Your task to perform on an android device: choose inbox layout in the gmail app Image 0: 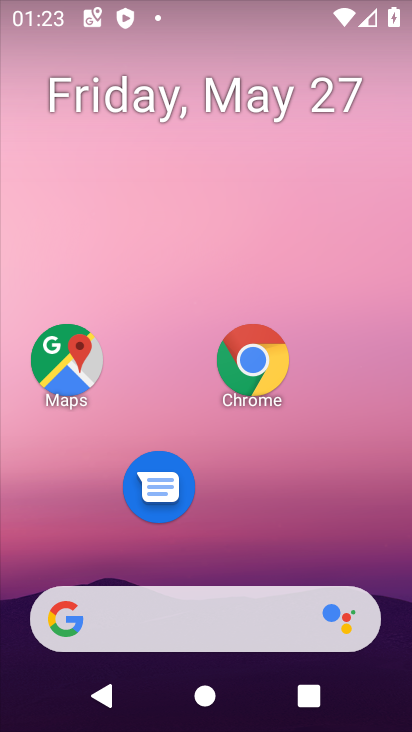
Step 0: drag from (326, 481) to (296, 65)
Your task to perform on an android device: choose inbox layout in the gmail app Image 1: 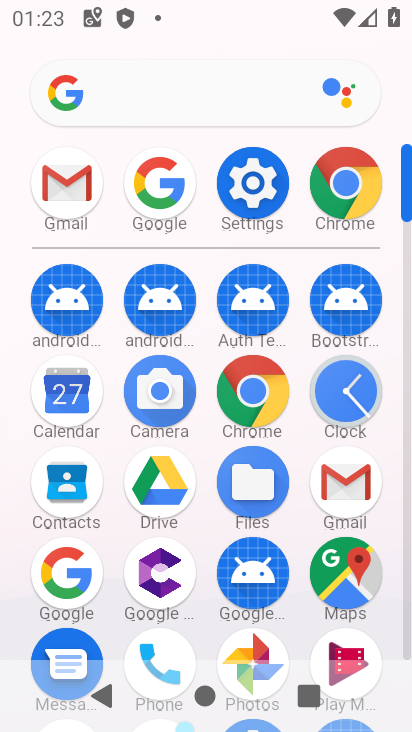
Step 1: click (356, 482)
Your task to perform on an android device: choose inbox layout in the gmail app Image 2: 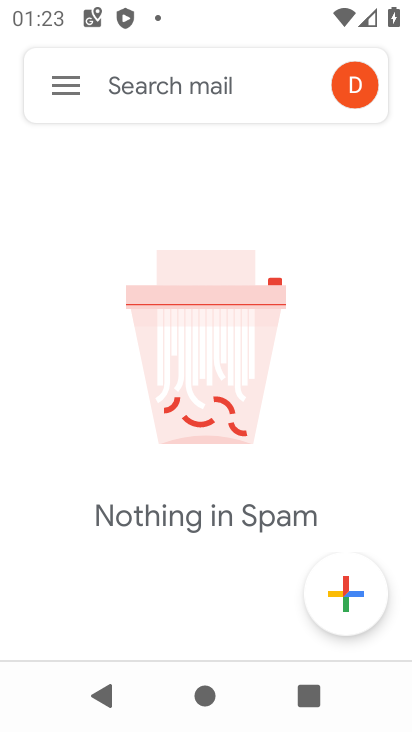
Step 2: click (64, 84)
Your task to perform on an android device: choose inbox layout in the gmail app Image 3: 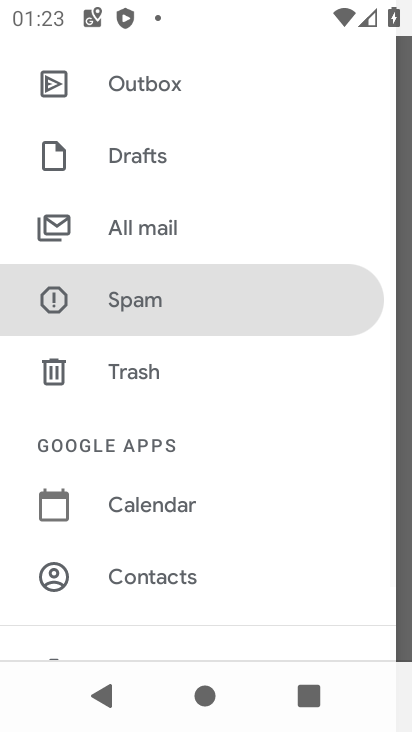
Step 3: drag from (230, 516) to (230, 222)
Your task to perform on an android device: choose inbox layout in the gmail app Image 4: 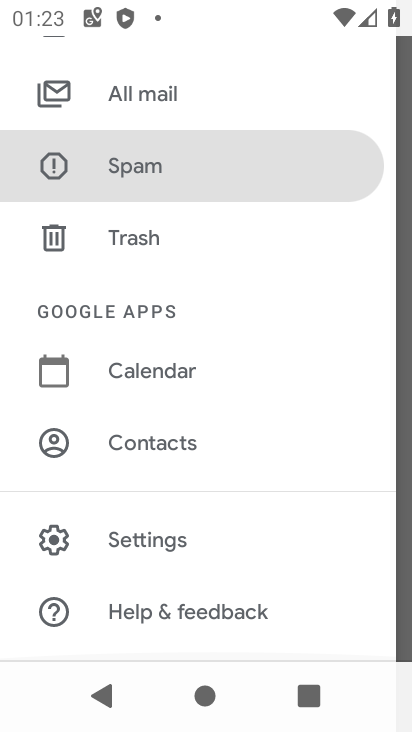
Step 4: click (177, 544)
Your task to perform on an android device: choose inbox layout in the gmail app Image 5: 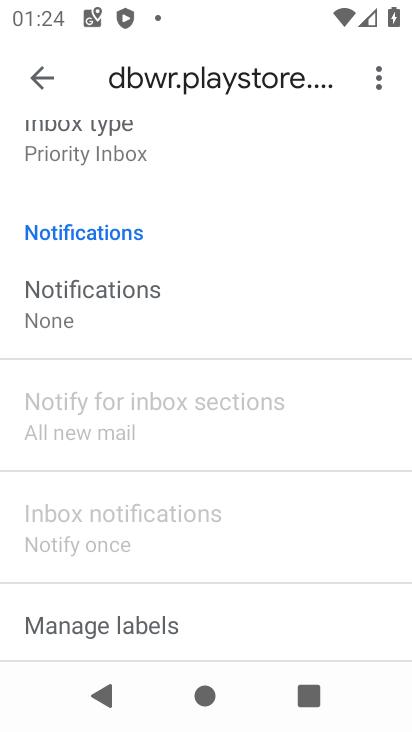
Step 5: drag from (120, 202) to (144, 318)
Your task to perform on an android device: choose inbox layout in the gmail app Image 6: 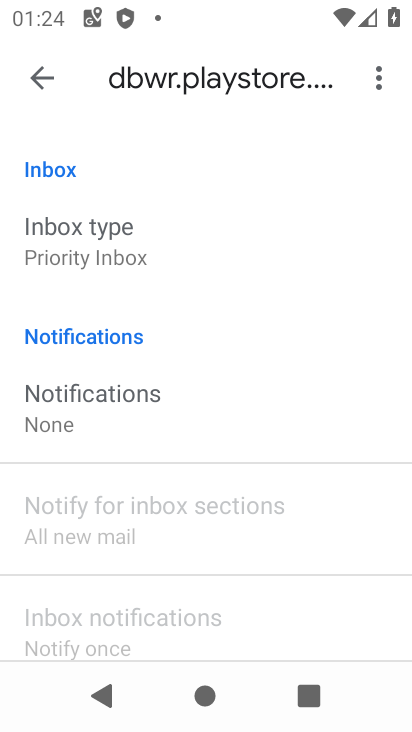
Step 6: click (119, 251)
Your task to perform on an android device: choose inbox layout in the gmail app Image 7: 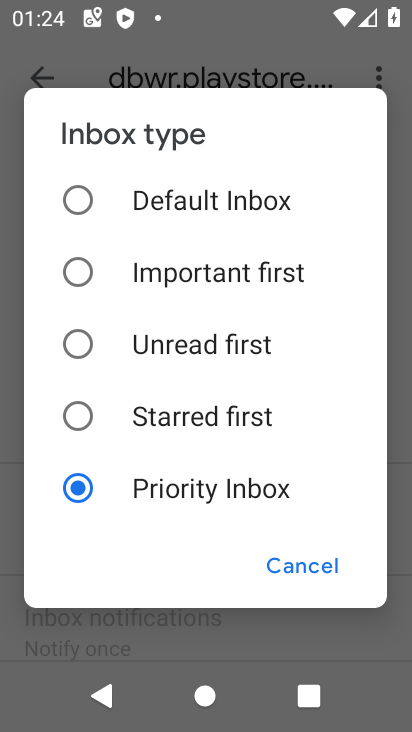
Step 7: click (73, 196)
Your task to perform on an android device: choose inbox layout in the gmail app Image 8: 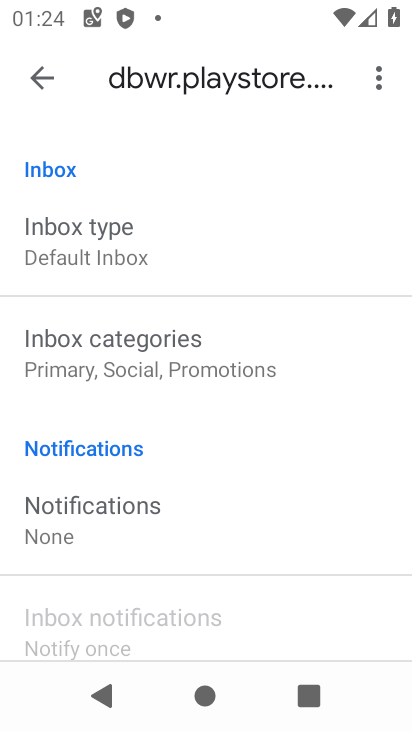
Step 8: task complete